Your task to perform on an android device: open app "AliExpress" (install if not already installed) and go to login screen Image 0: 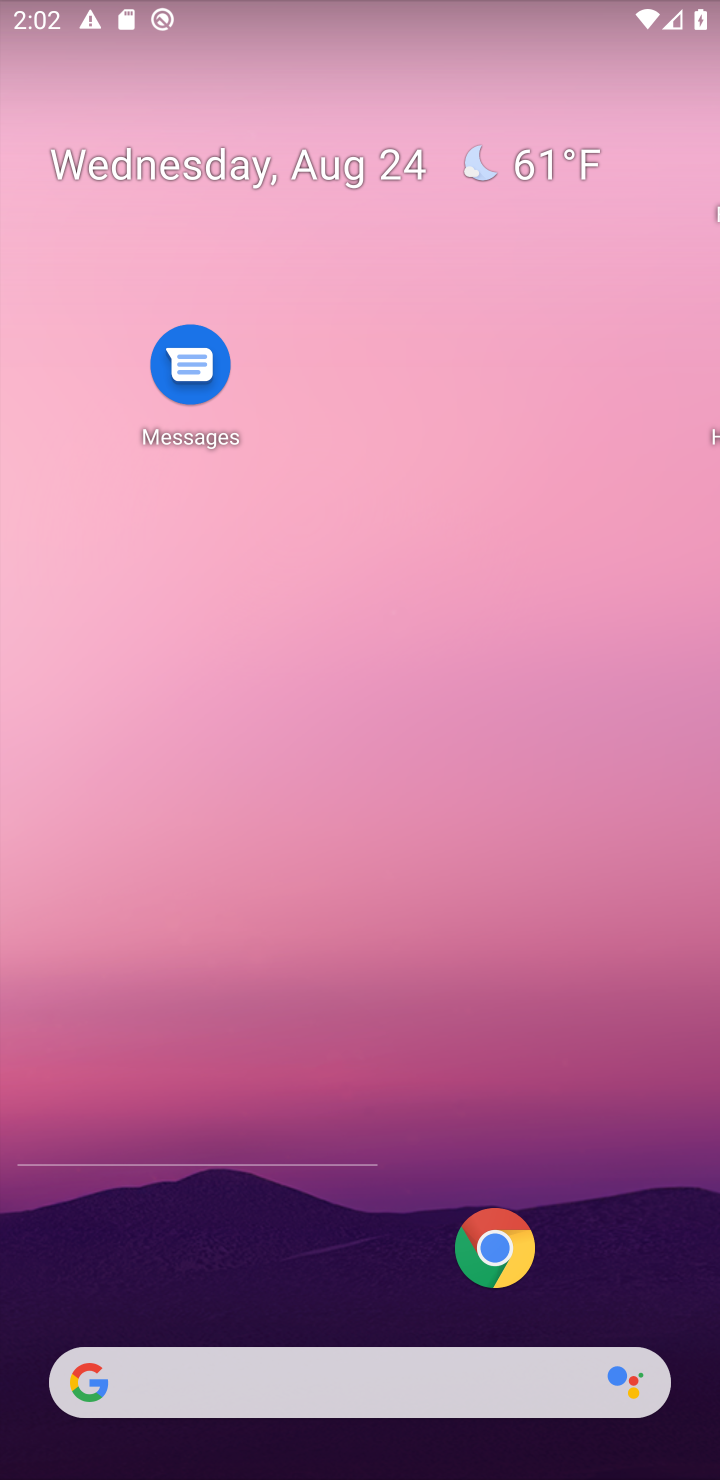
Step 0: click (54, 95)
Your task to perform on an android device: open app "AliExpress" (install if not already installed) and go to login screen Image 1: 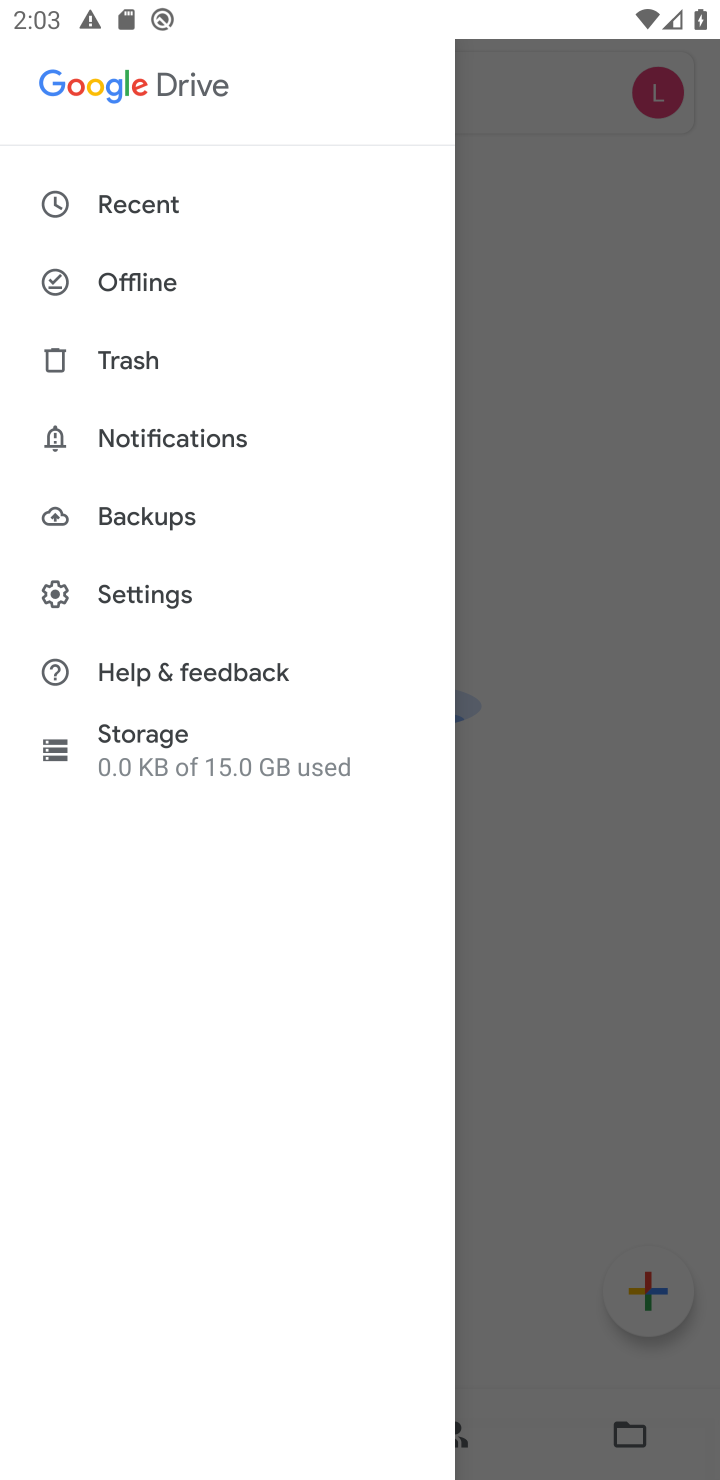
Step 1: click (608, 252)
Your task to perform on an android device: open app "AliExpress" (install if not already installed) and go to login screen Image 2: 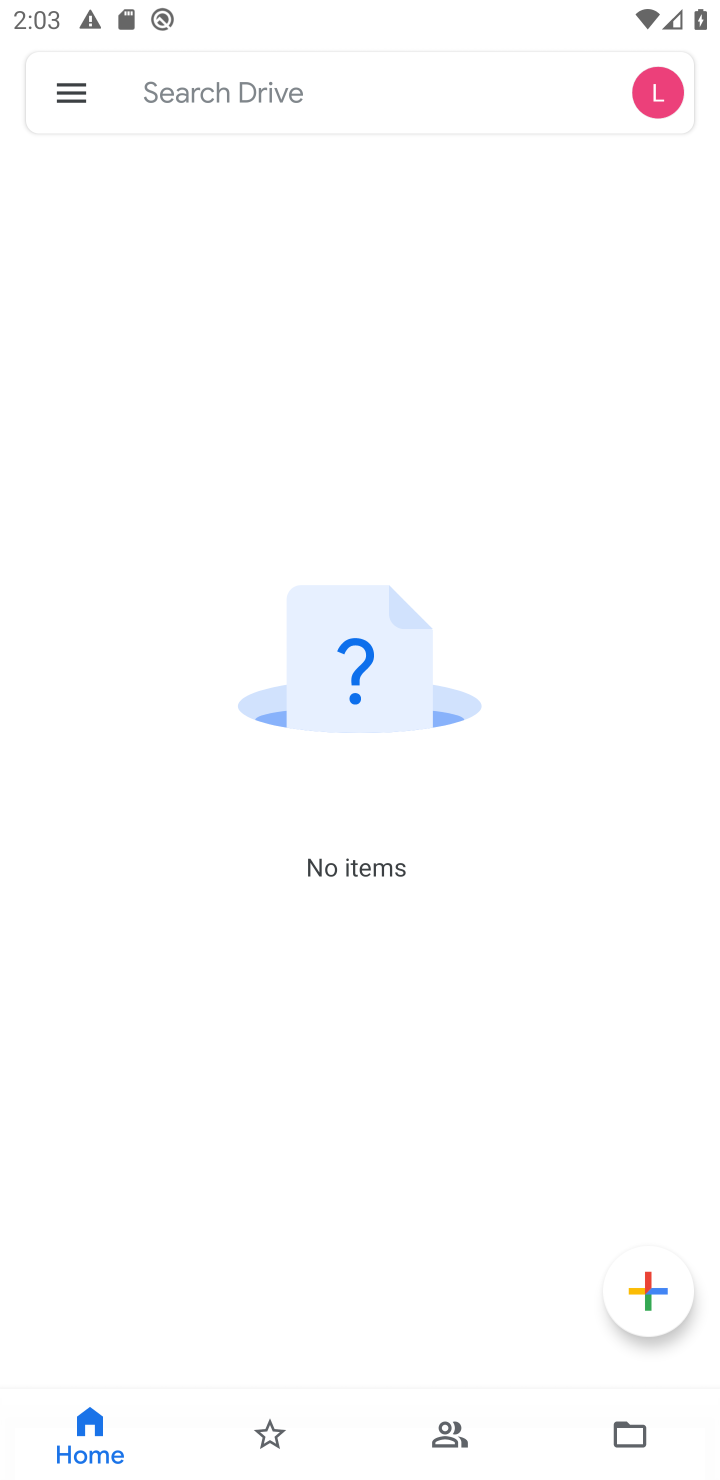
Step 2: press home button
Your task to perform on an android device: open app "AliExpress" (install if not already installed) and go to login screen Image 3: 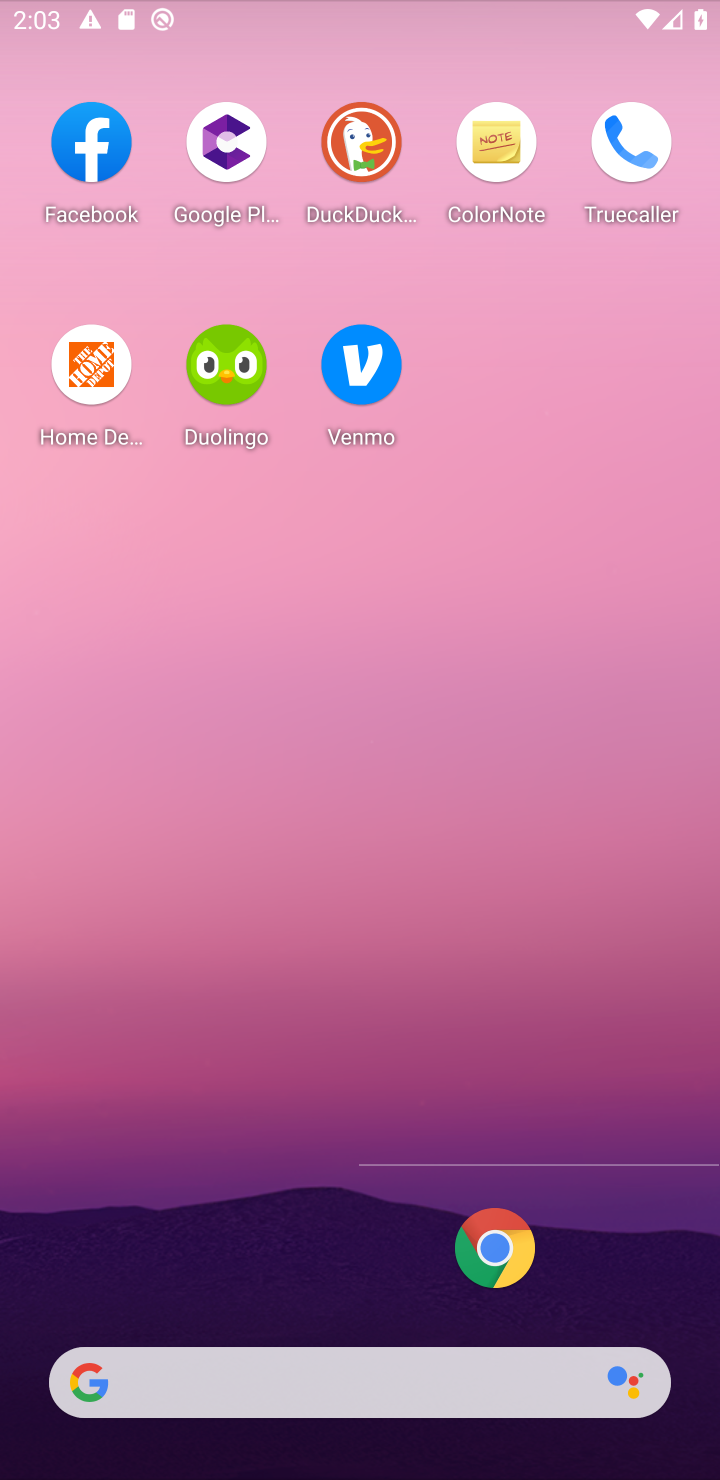
Step 3: drag from (232, 971) to (234, 398)
Your task to perform on an android device: open app "AliExpress" (install if not already installed) and go to login screen Image 4: 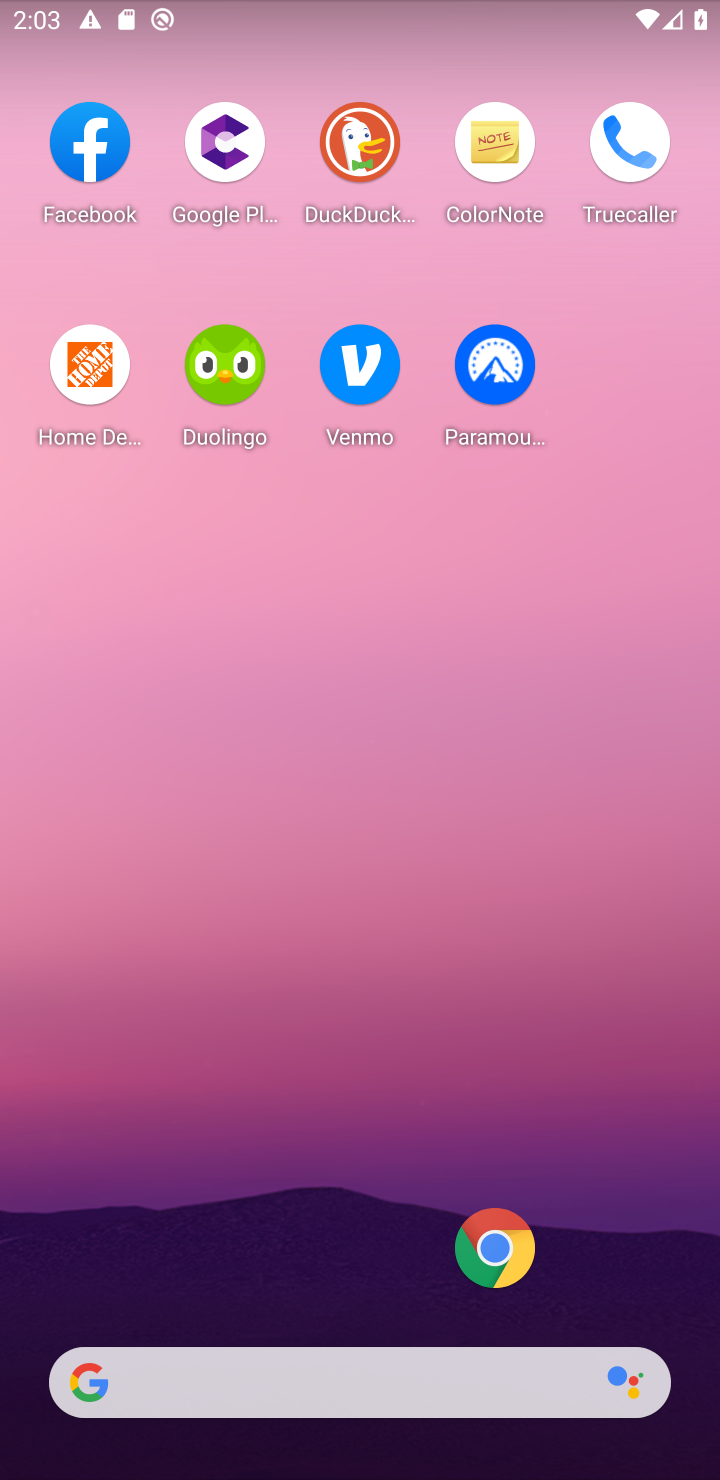
Step 4: drag from (330, 1256) to (344, 638)
Your task to perform on an android device: open app "AliExpress" (install if not already installed) and go to login screen Image 5: 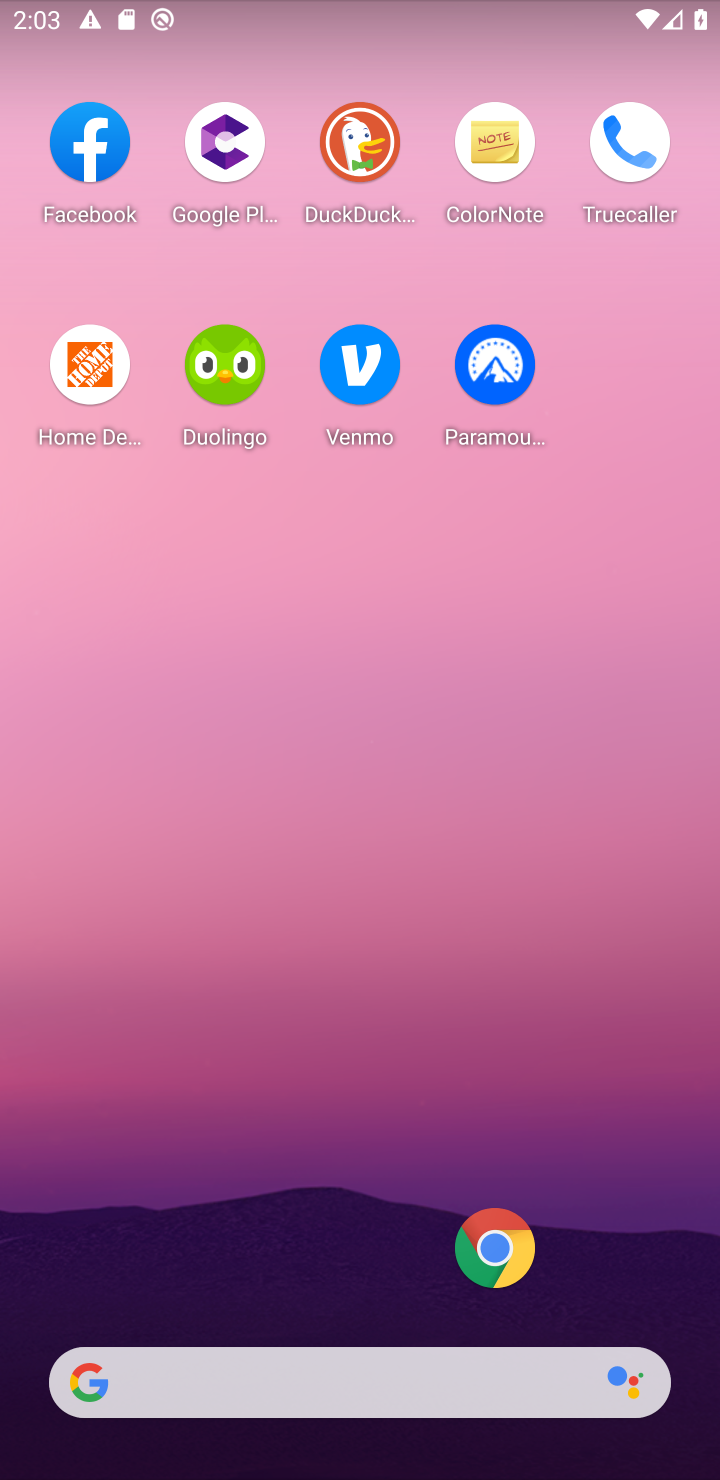
Step 5: drag from (288, 1289) to (471, 154)
Your task to perform on an android device: open app "AliExpress" (install if not already installed) and go to login screen Image 6: 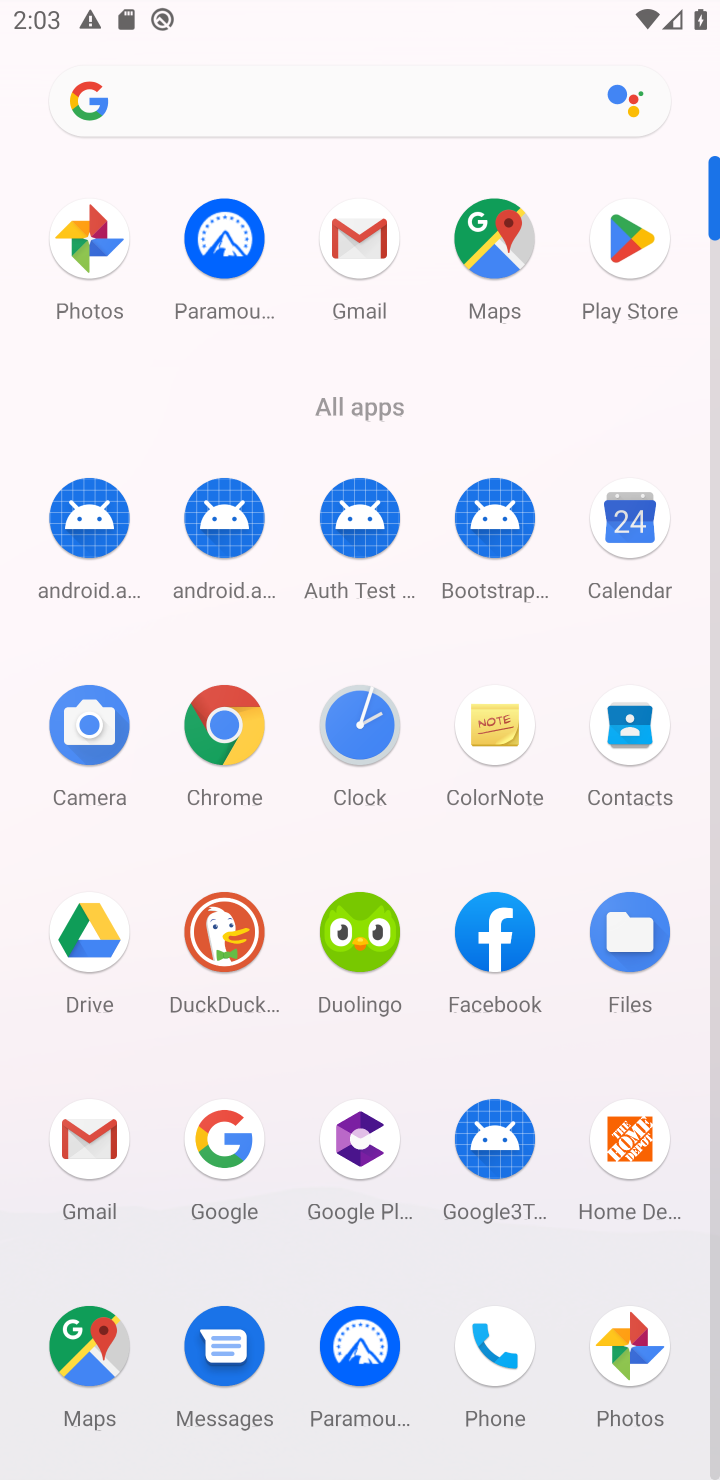
Step 6: click (621, 237)
Your task to perform on an android device: open app "AliExpress" (install if not already installed) and go to login screen Image 7: 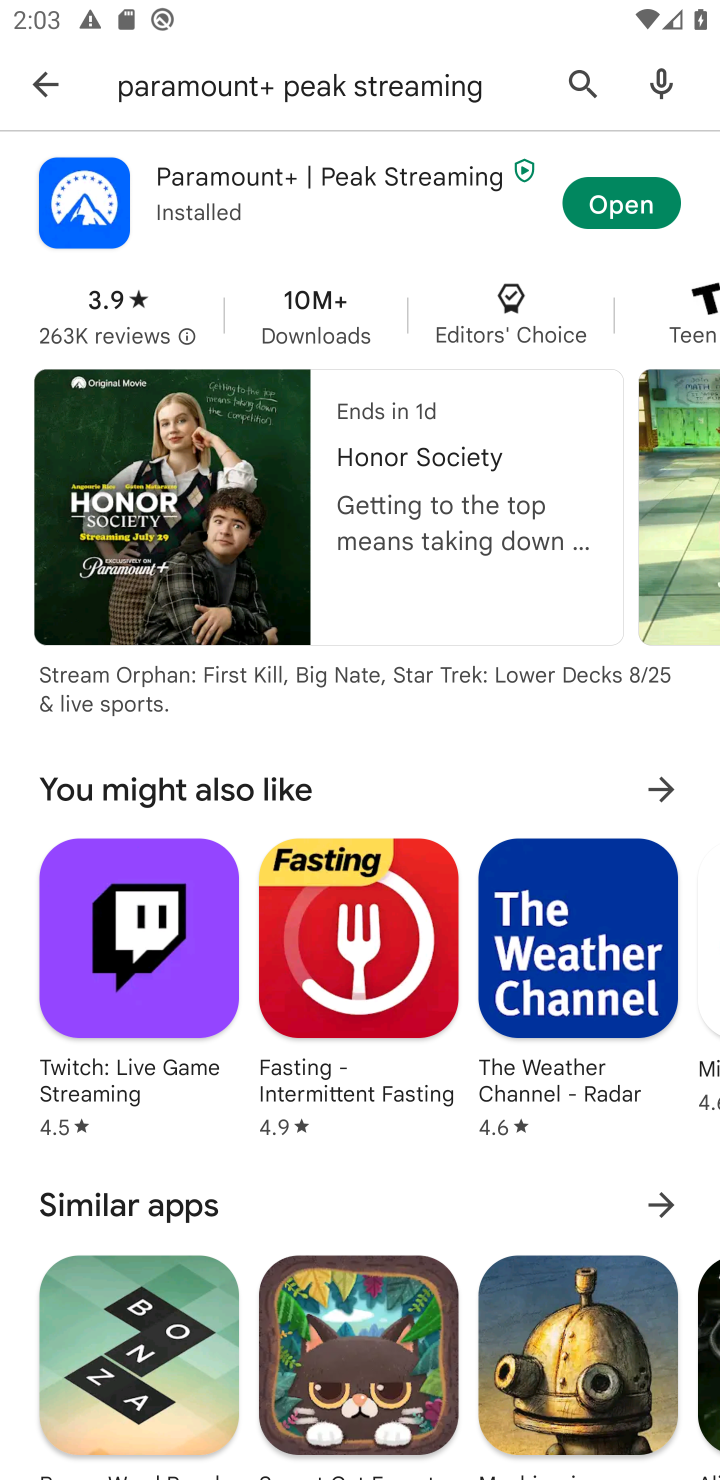
Step 7: click (63, 96)
Your task to perform on an android device: open app "AliExpress" (install if not already installed) and go to login screen Image 8: 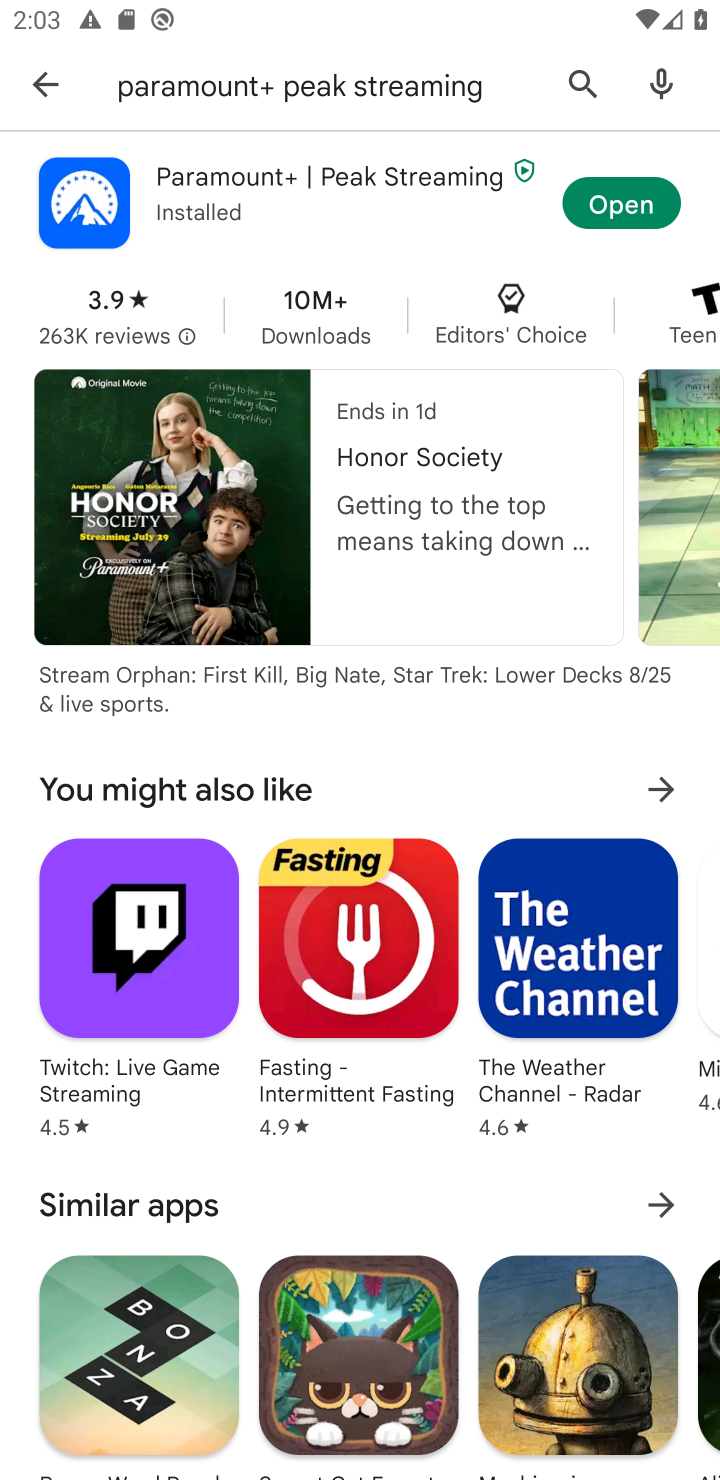
Step 8: click (597, 72)
Your task to perform on an android device: open app "AliExpress" (install if not already installed) and go to login screen Image 9: 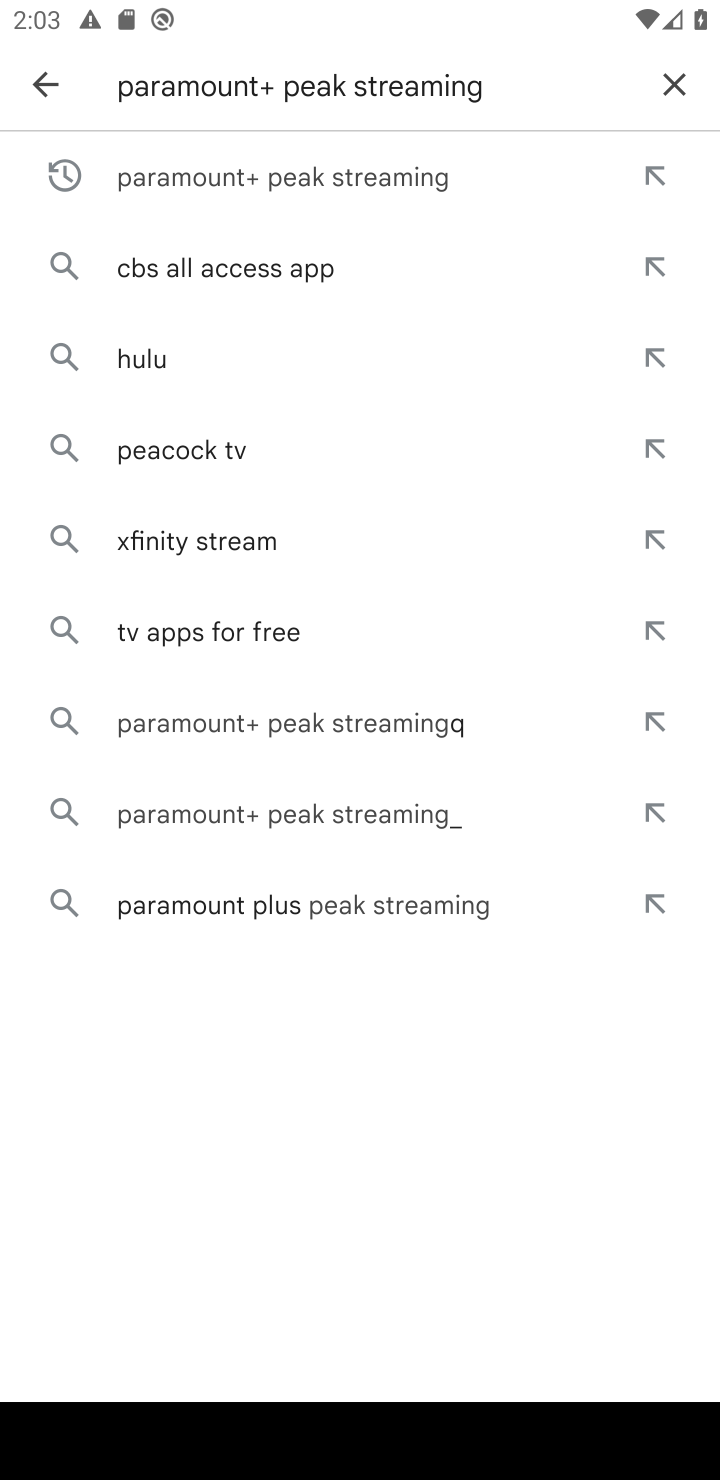
Step 9: click (575, 88)
Your task to perform on an android device: open app "AliExpress" (install if not already installed) and go to login screen Image 10: 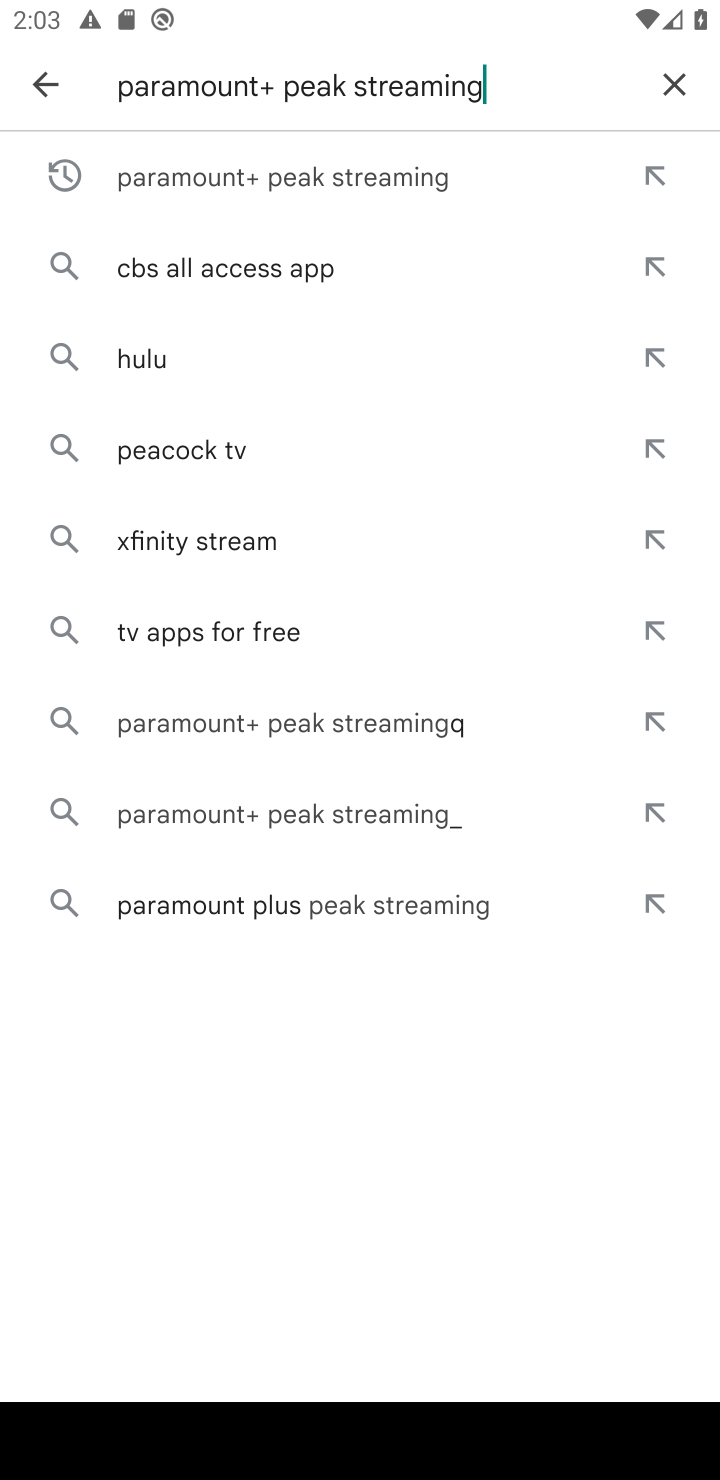
Step 10: click (673, 82)
Your task to perform on an android device: open app "AliExpress" (install if not already installed) and go to login screen Image 11: 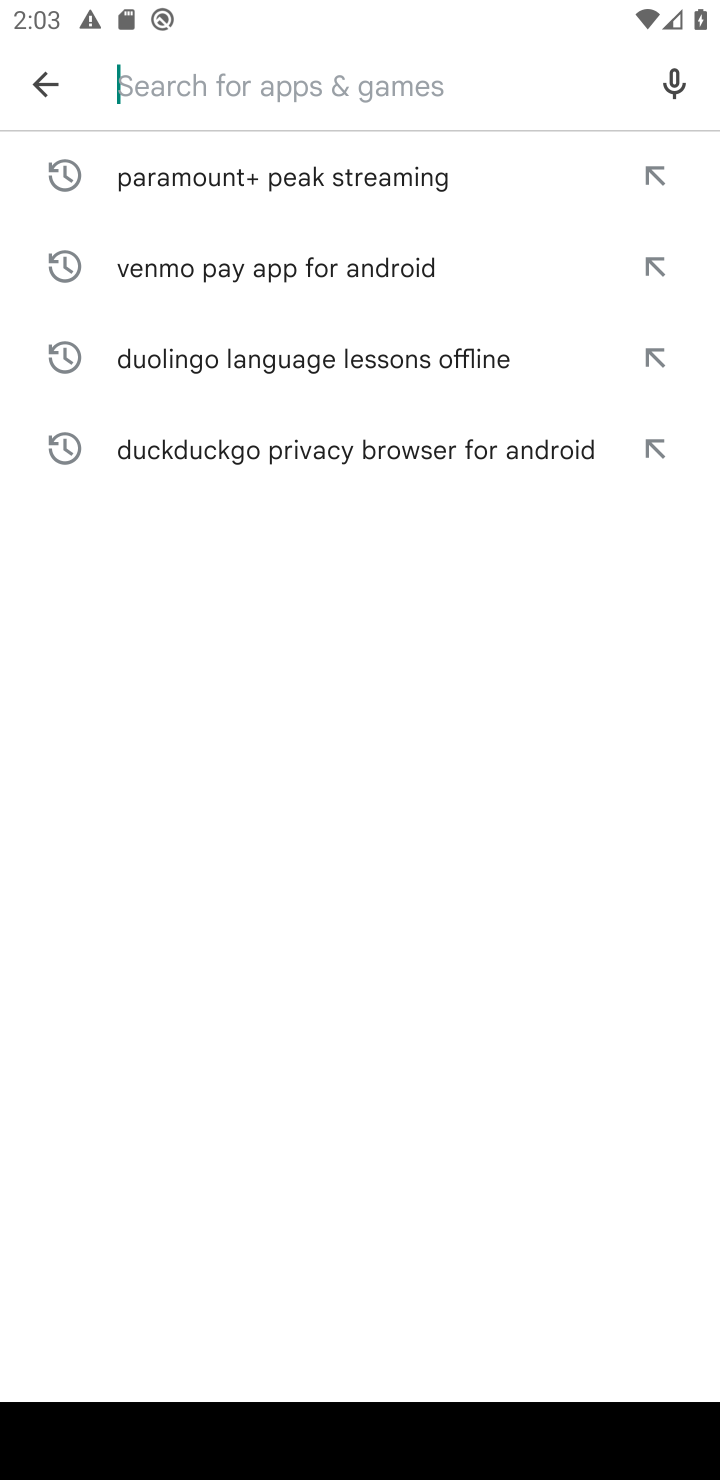
Step 11: click (524, 82)
Your task to perform on an android device: open app "AliExpress" (install if not already installed) and go to login screen Image 12: 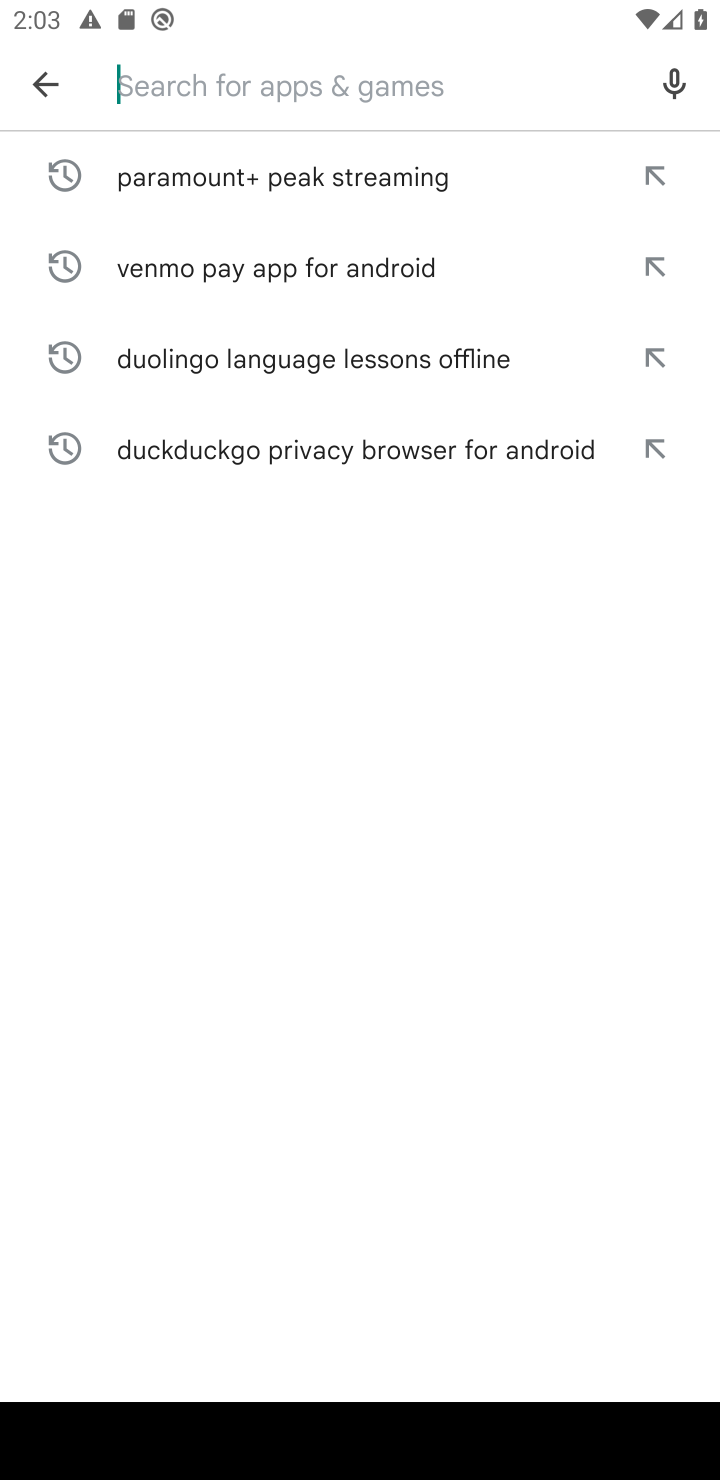
Step 12: type "AliExpress "
Your task to perform on an android device: open app "AliExpress" (install if not already installed) and go to login screen Image 13: 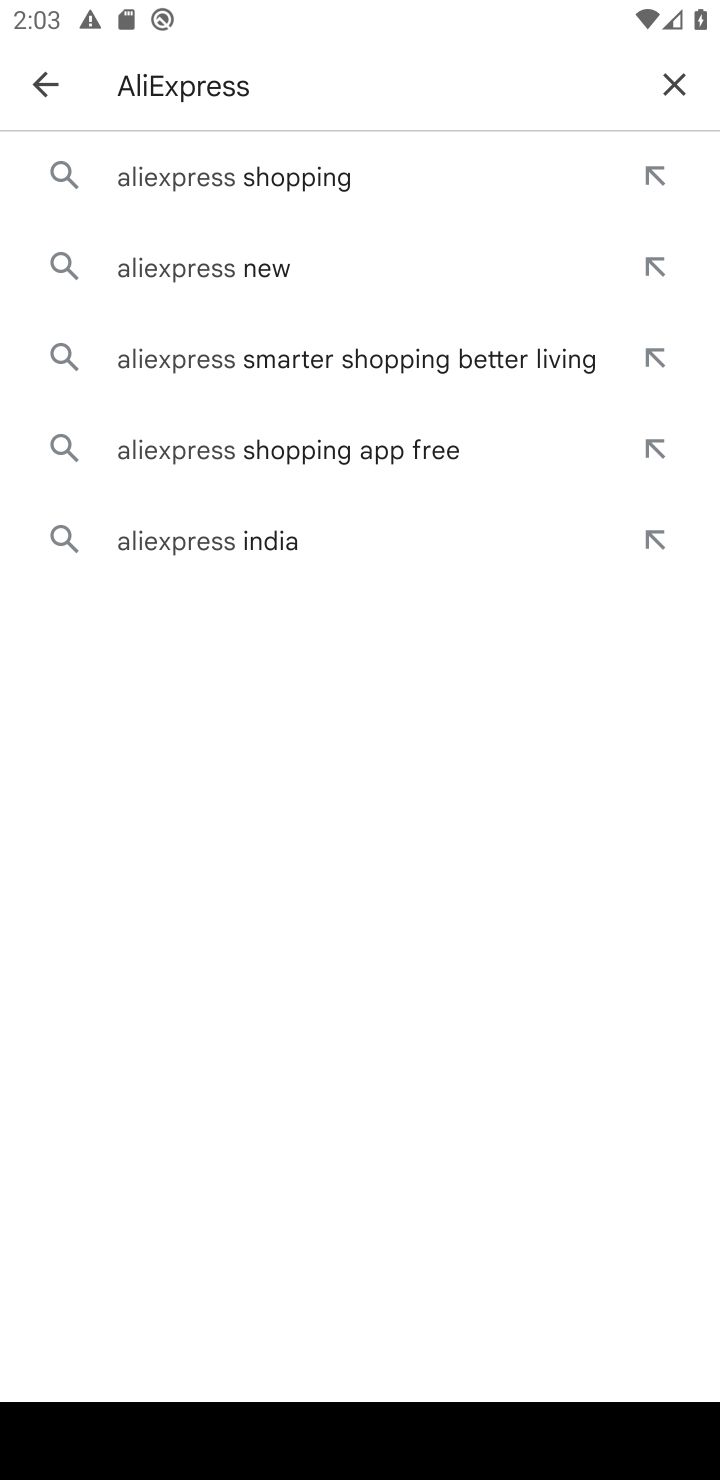
Step 13: click (334, 160)
Your task to perform on an android device: open app "AliExpress" (install if not already installed) and go to login screen Image 14: 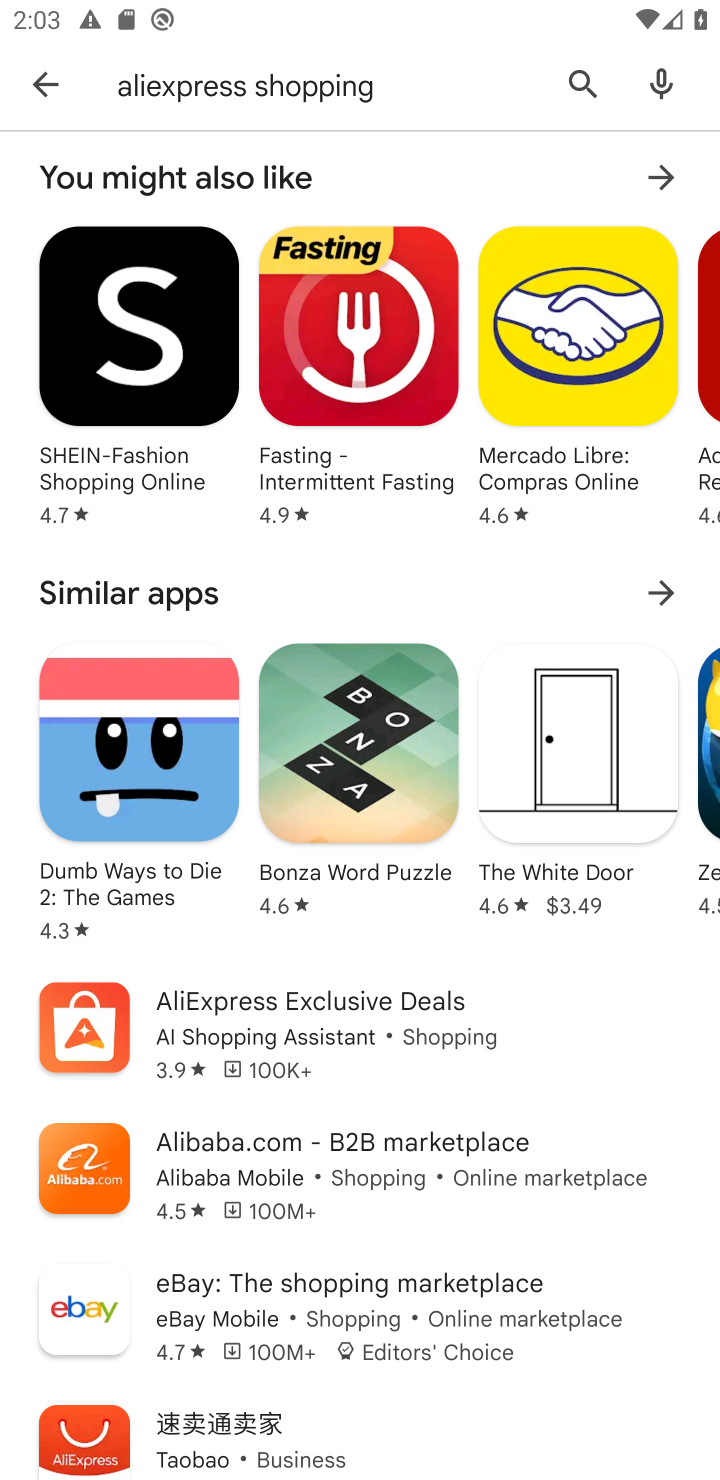
Step 14: click (293, 1047)
Your task to perform on an android device: open app "AliExpress" (install if not already installed) and go to login screen Image 15: 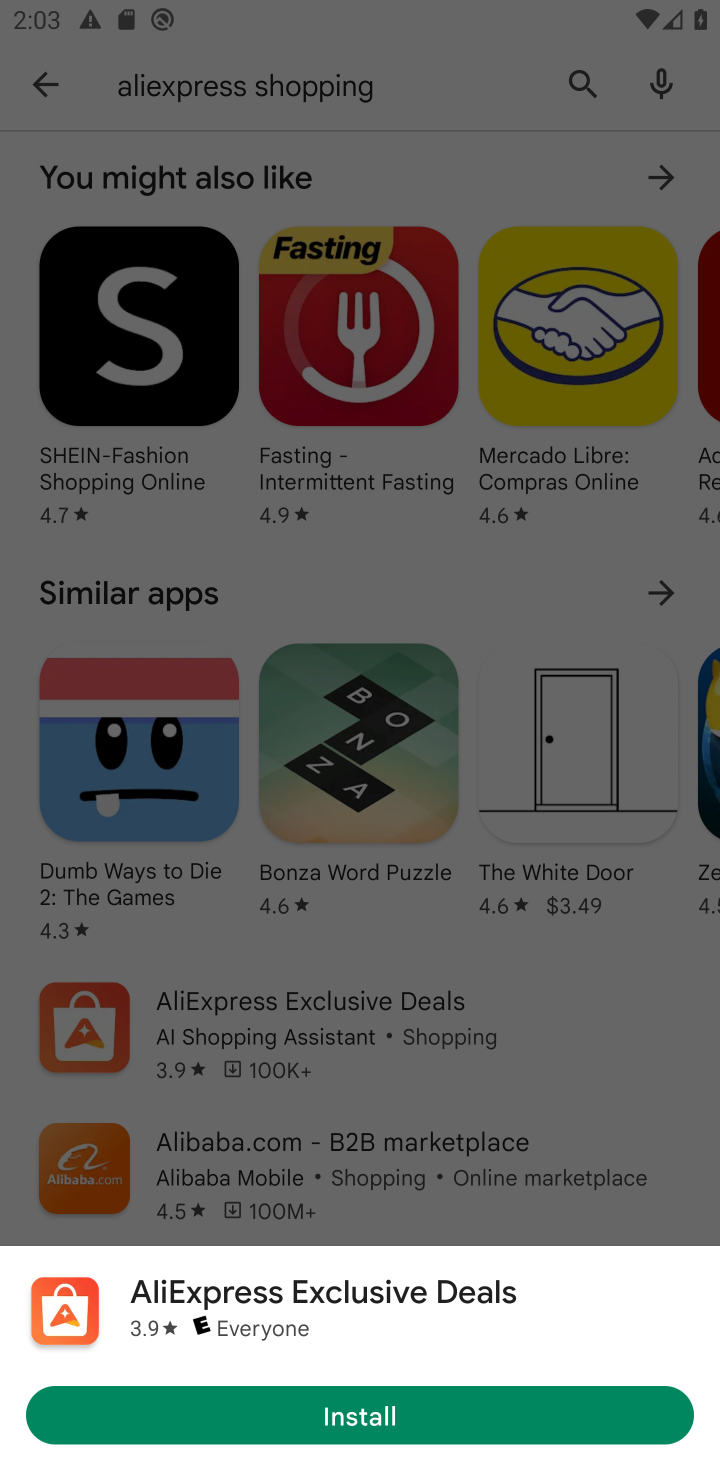
Step 15: click (360, 1410)
Your task to perform on an android device: open app "AliExpress" (install if not already installed) and go to login screen Image 16: 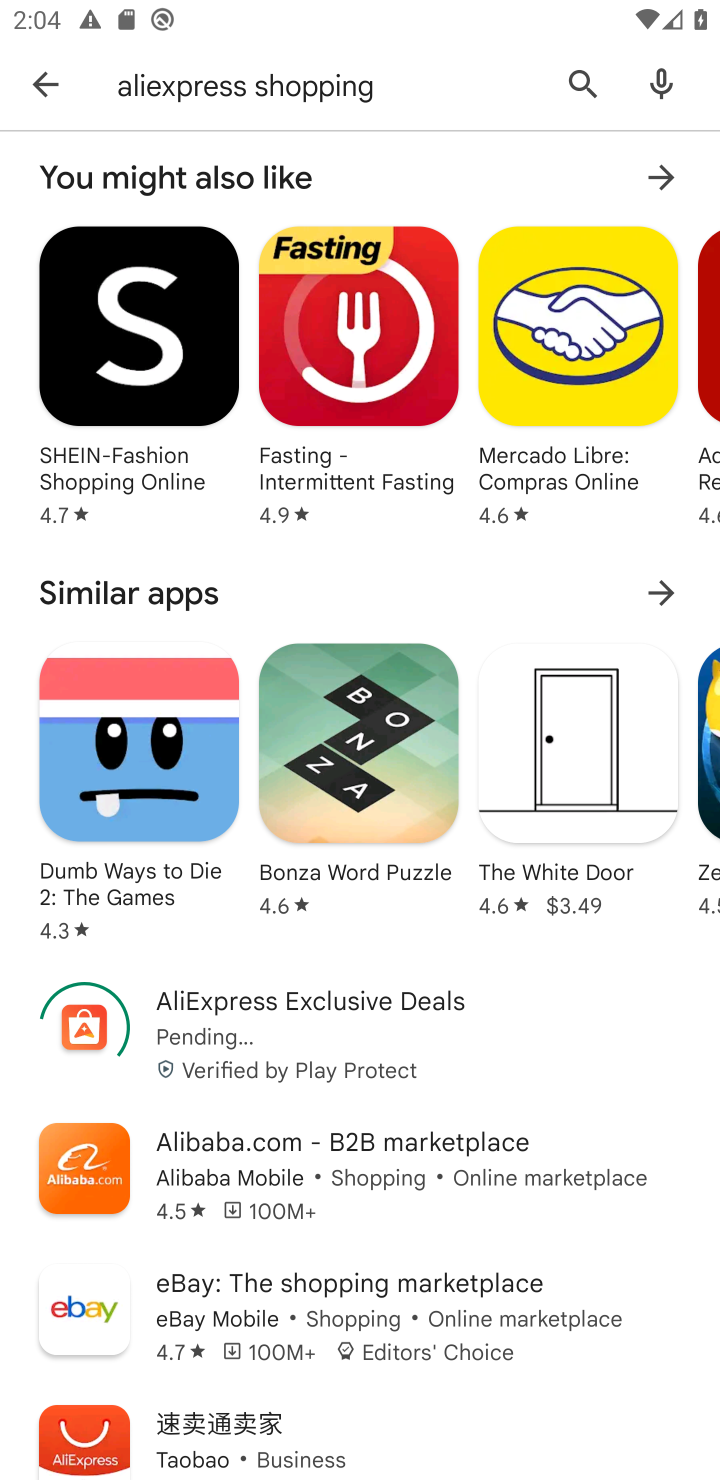
Step 16: click (317, 1019)
Your task to perform on an android device: open app "AliExpress" (install if not already installed) and go to login screen Image 17: 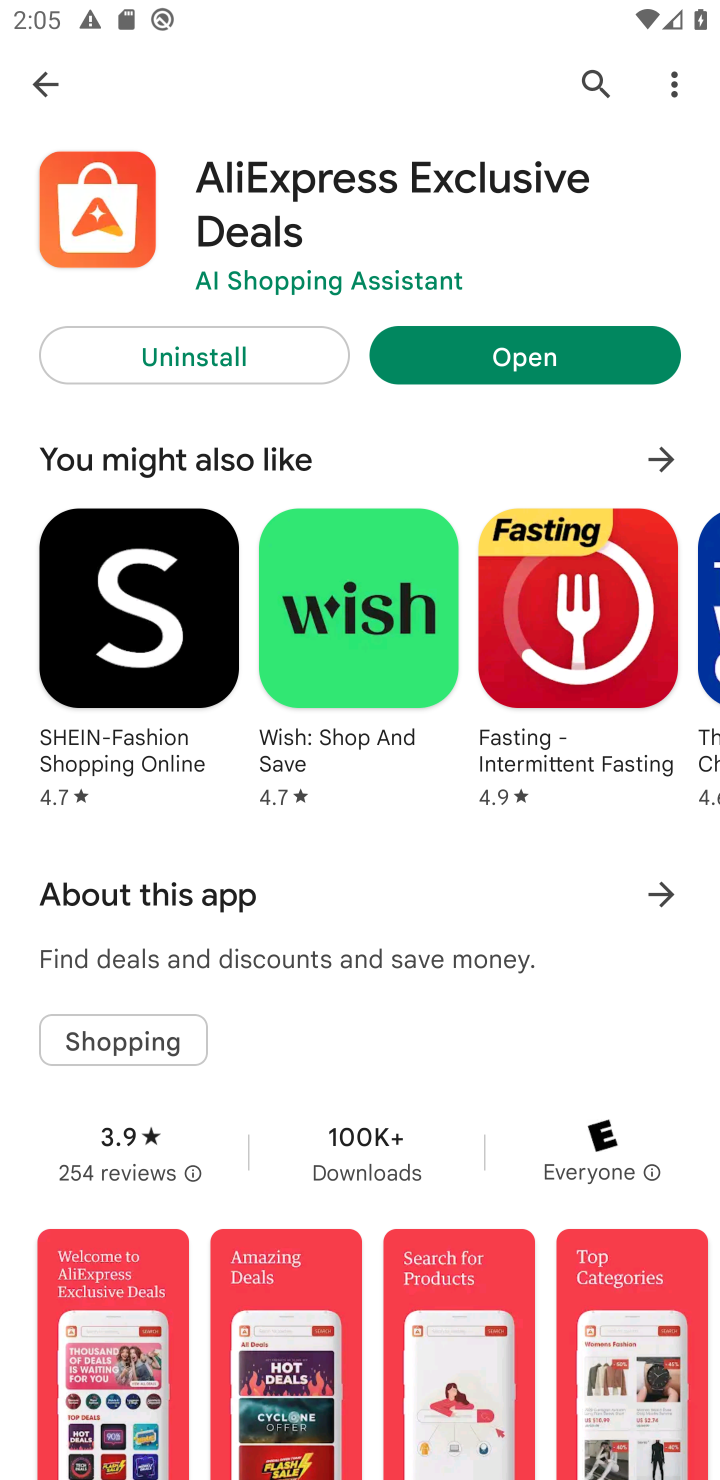
Step 17: task complete